Your task to perform on an android device: Show me popular games on the Play Store Image 0: 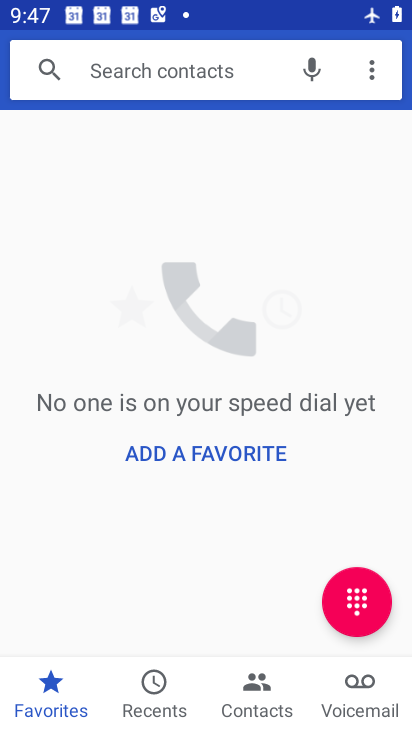
Step 0: press home button
Your task to perform on an android device: Show me popular games on the Play Store Image 1: 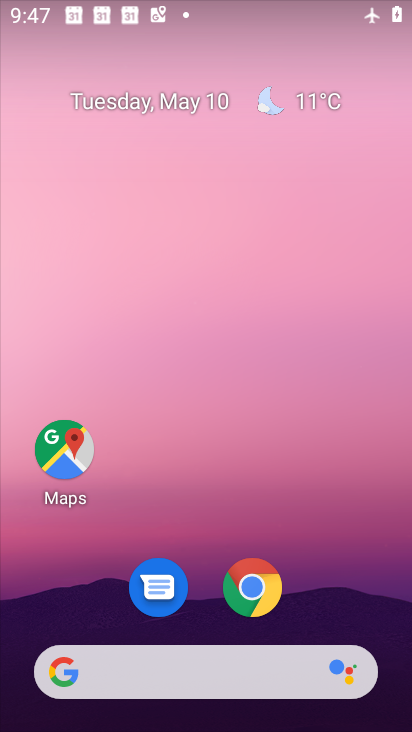
Step 1: drag from (376, 601) to (352, 115)
Your task to perform on an android device: Show me popular games on the Play Store Image 2: 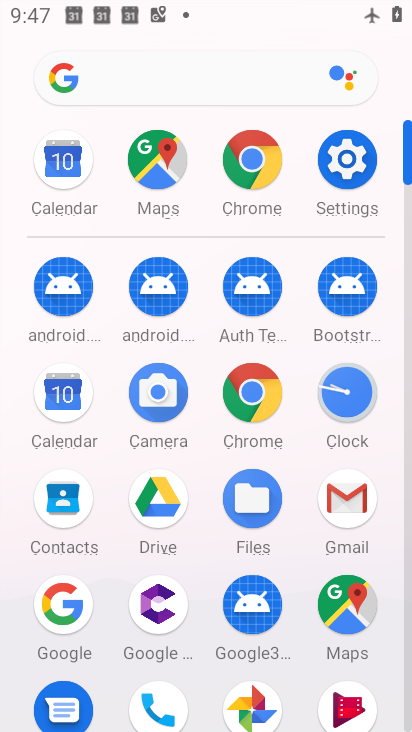
Step 2: drag from (191, 645) to (208, 340)
Your task to perform on an android device: Show me popular games on the Play Store Image 3: 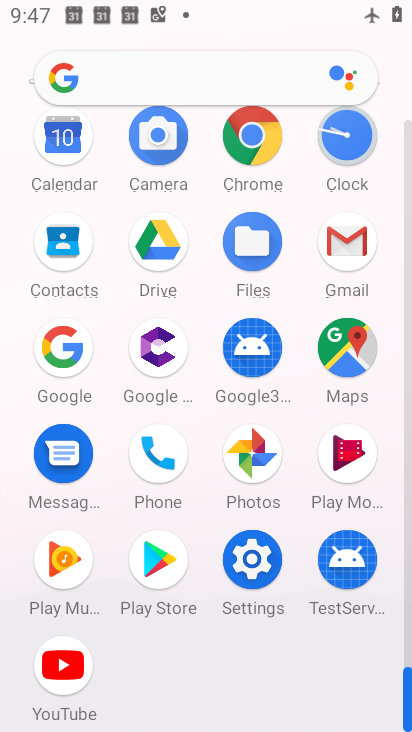
Step 3: click (158, 560)
Your task to perform on an android device: Show me popular games on the Play Store Image 4: 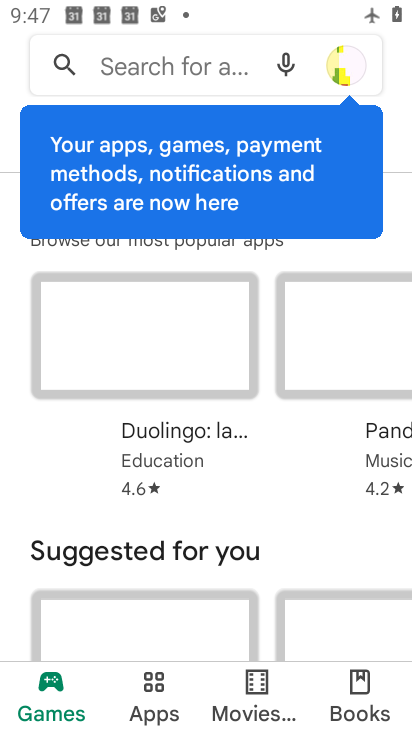
Step 4: click (149, 684)
Your task to perform on an android device: Show me popular games on the Play Store Image 5: 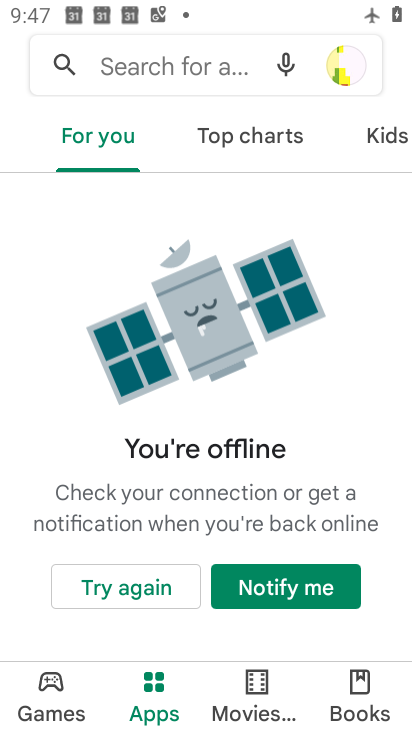
Step 5: drag from (318, 135) to (31, 133)
Your task to perform on an android device: Show me popular games on the Play Store Image 6: 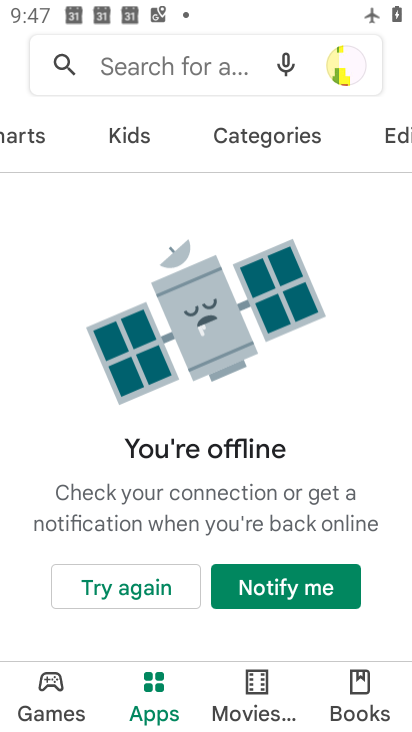
Step 6: click (236, 132)
Your task to perform on an android device: Show me popular games on the Play Store Image 7: 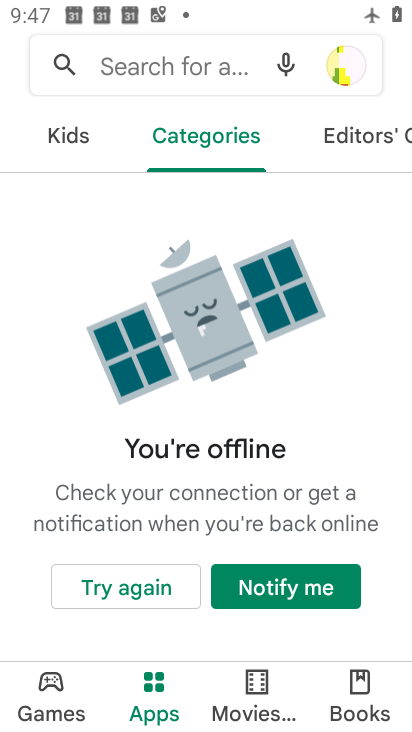
Step 7: task complete